Your task to perform on an android device: Turn off the flashlight Image 0: 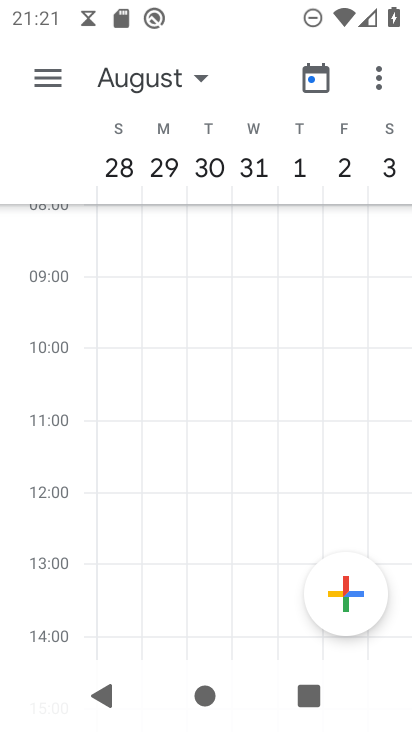
Step 0: press home button
Your task to perform on an android device: Turn off the flashlight Image 1: 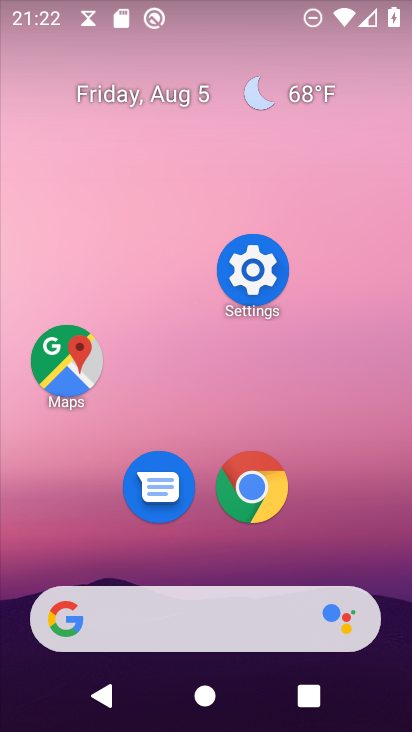
Step 1: task complete